Your task to perform on an android device: find which apps use the phone's location Image 0: 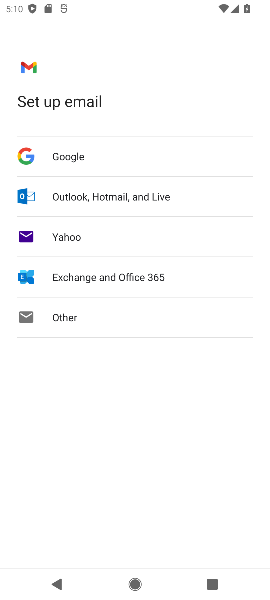
Step 0: press home button
Your task to perform on an android device: find which apps use the phone's location Image 1: 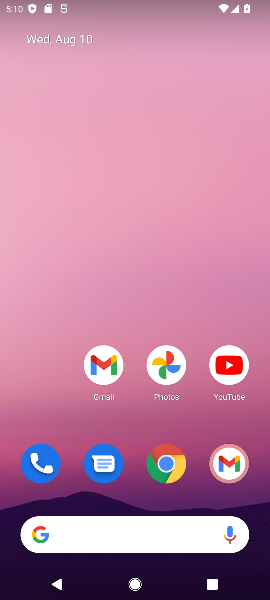
Step 1: drag from (139, 496) to (171, 48)
Your task to perform on an android device: find which apps use the phone's location Image 2: 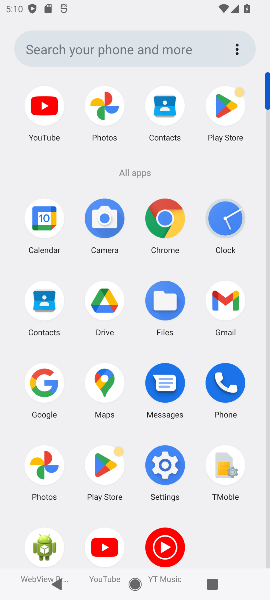
Step 2: click (170, 466)
Your task to perform on an android device: find which apps use the phone's location Image 3: 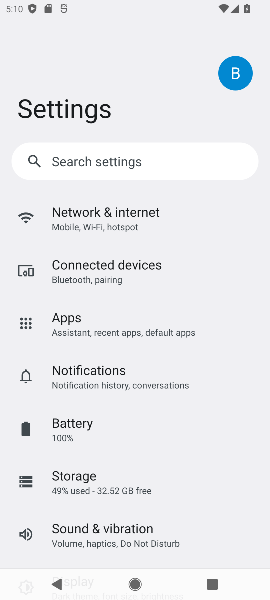
Step 3: drag from (153, 495) to (146, 256)
Your task to perform on an android device: find which apps use the phone's location Image 4: 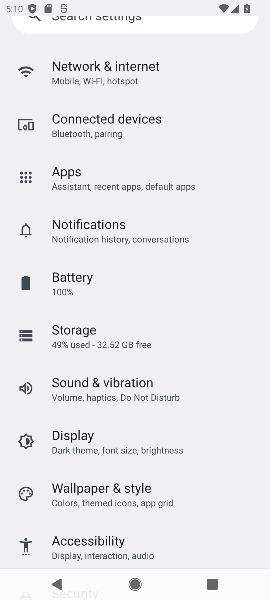
Step 4: drag from (175, 529) to (148, 274)
Your task to perform on an android device: find which apps use the phone's location Image 5: 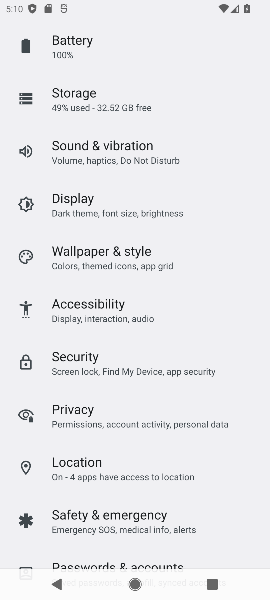
Step 5: click (74, 465)
Your task to perform on an android device: find which apps use the phone's location Image 6: 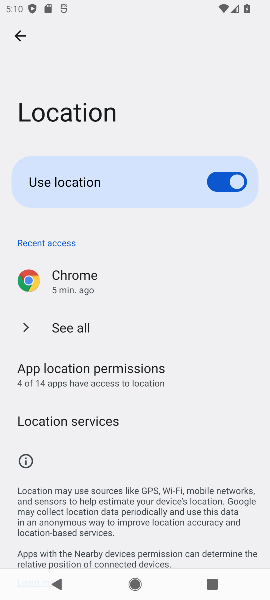
Step 6: click (69, 325)
Your task to perform on an android device: find which apps use the phone's location Image 7: 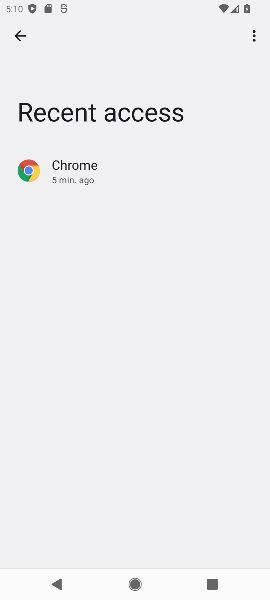
Step 7: task complete